Your task to perform on an android device: Go to ESPN.com Image 0: 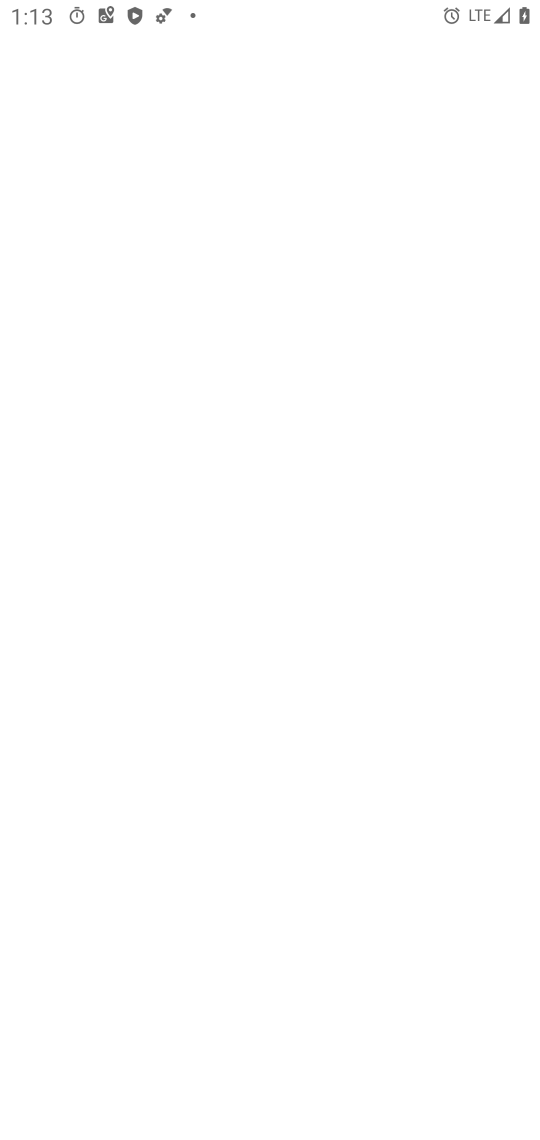
Step 0: press home button
Your task to perform on an android device: Go to ESPN.com Image 1: 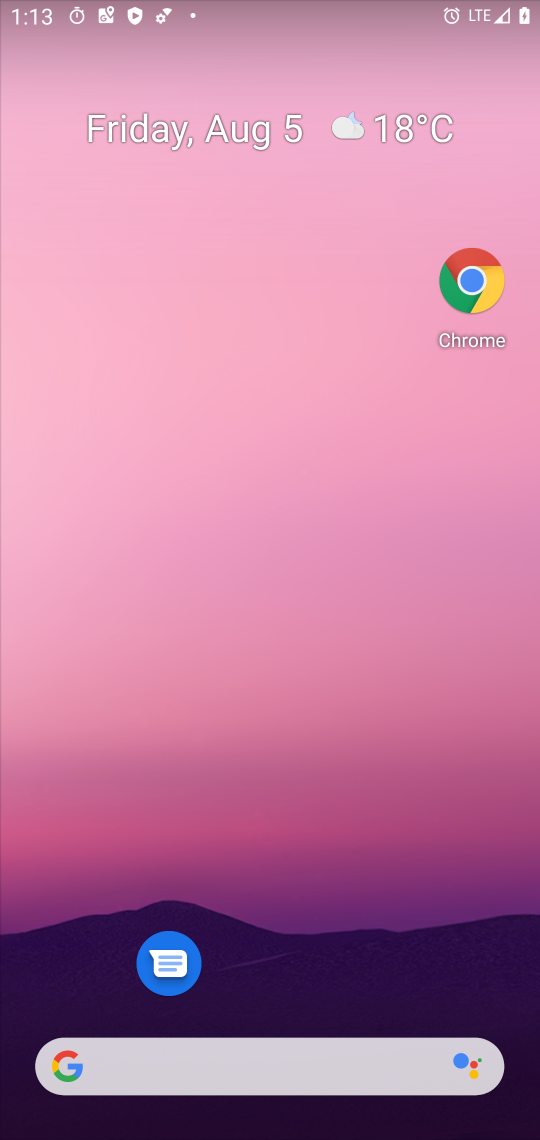
Step 1: drag from (352, 948) to (373, 14)
Your task to perform on an android device: Go to ESPN.com Image 2: 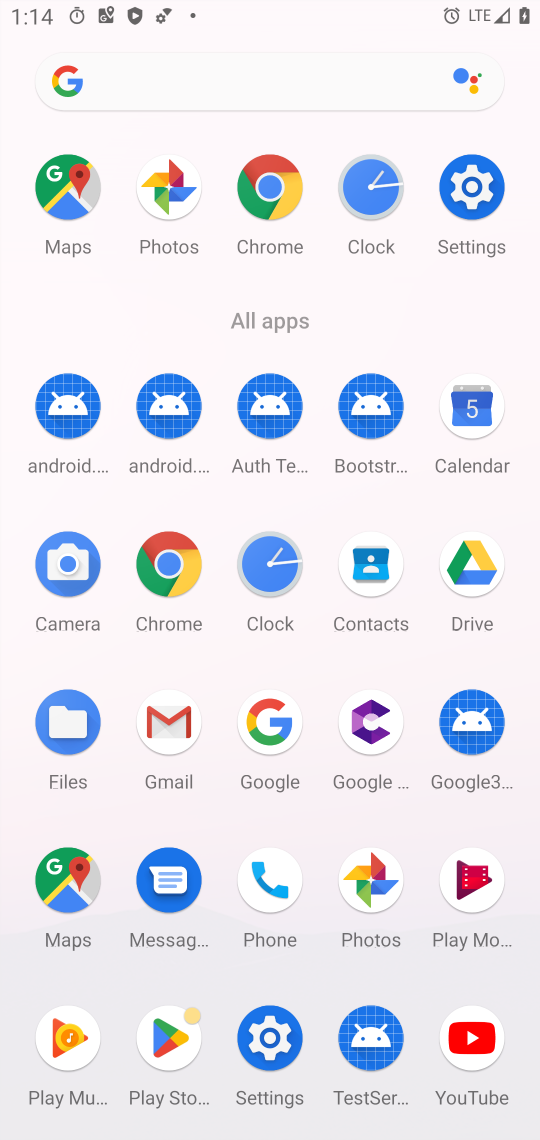
Step 2: click (278, 181)
Your task to perform on an android device: Go to ESPN.com Image 3: 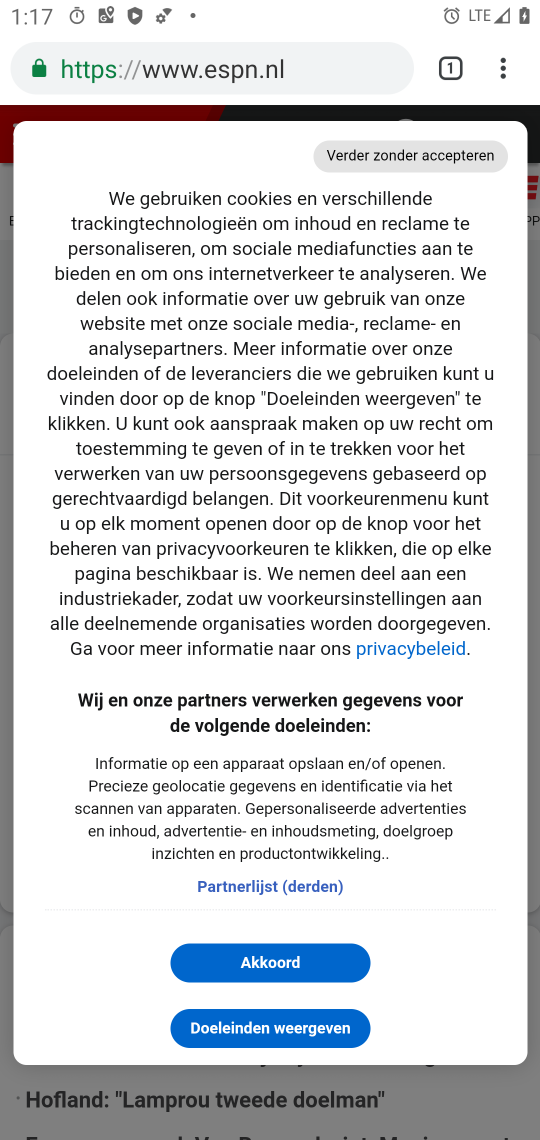
Step 3: task complete